Your task to perform on an android device: Open Youtube and go to the subscriptions tab Image 0: 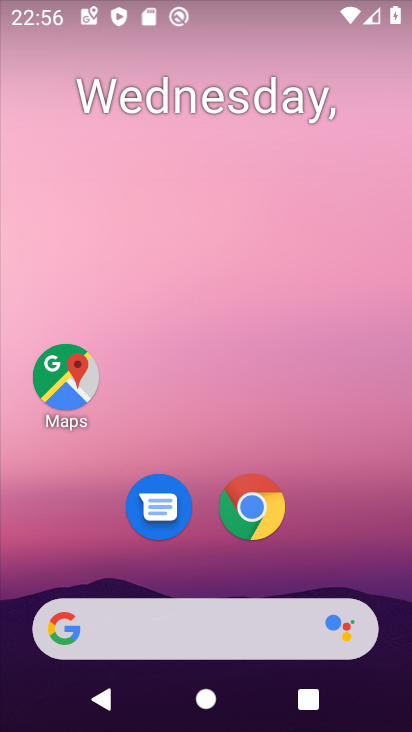
Step 0: drag from (329, 491) to (329, 245)
Your task to perform on an android device: Open Youtube and go to the subscriptions tab Image 1: 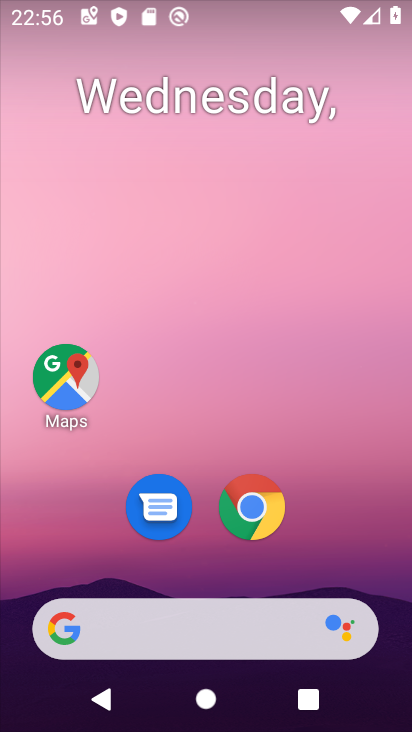
Step 1: drag from (291, 611) to (294, 237)
Your task to perform on an android device: Open Youtube and go to the subscriptions tab Image 2: 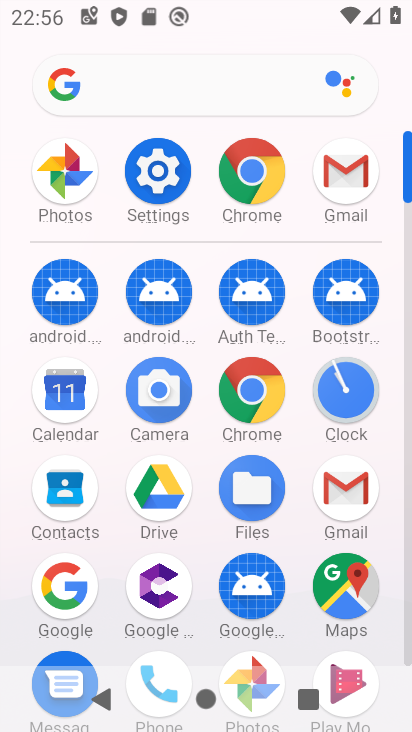
Step 2: drag from (277, 600) to (299, 148)
Your task to perform on an android device: Open Youtube and go to the subscriptions tab Image 3: 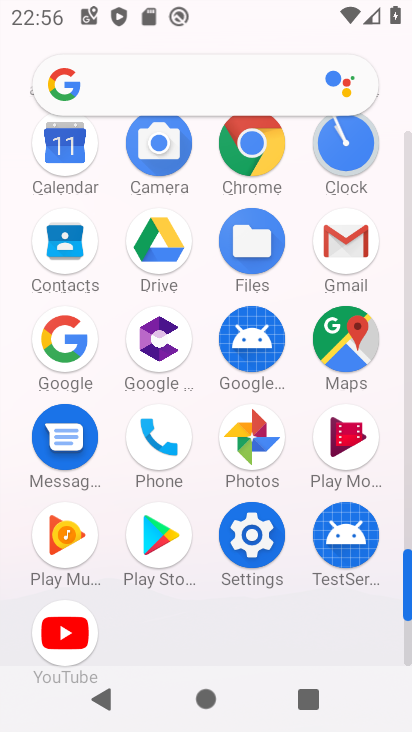
Step 3: click (59, 642)
Your task to perform on an android device: Open Youtube and go to the subscriptions tab Image 4: 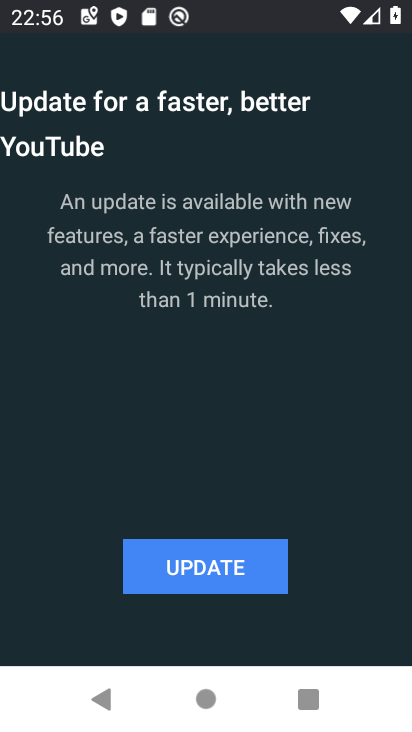
Step 4: task complete